Your task to perform on an android device: Do I have any events tomorrow? Image 0: 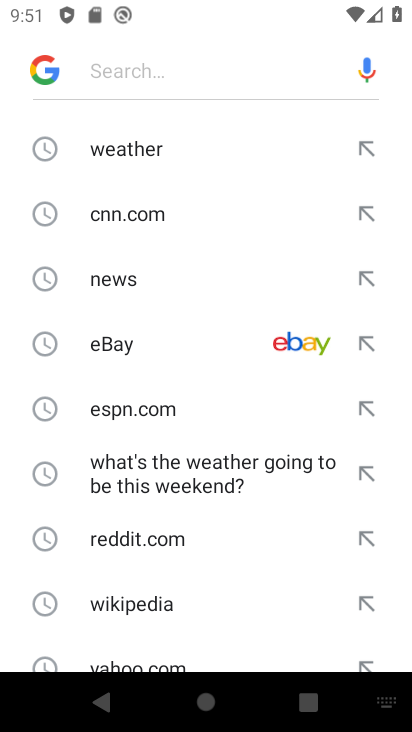
Step 0: press home button
Your task to perform on an android device: Do I have any events tomorrow? Image 1: 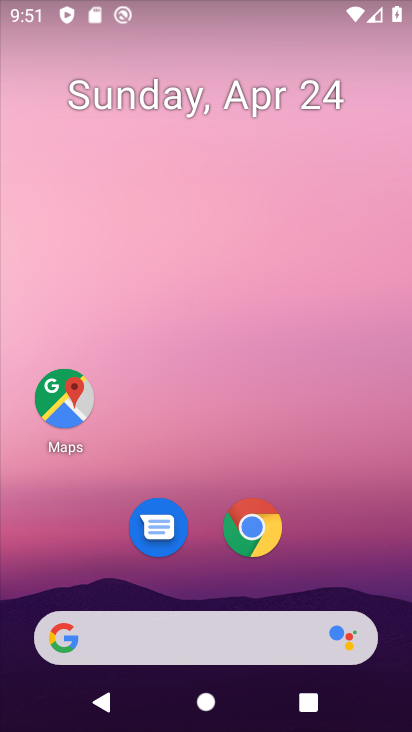
Step 1: drag from (154, 538) to (246, 100)
Your task to perform on an android device: Do I have any events tomorrow? Image 2: 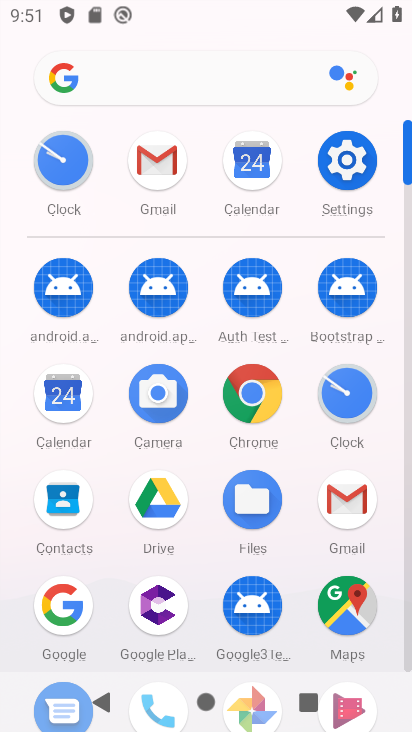
Step 2: click (69, 402)
Your task to perform on an android device: Do I have any events tomorrow? Image 3: 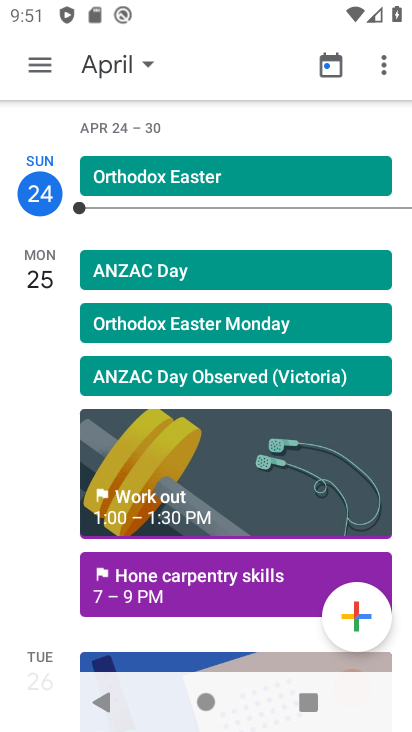
Step 3: drag from (185, 643) to (253, 144)
Your task to perform on an android device: Do I have any events tomorrow? Image 4: 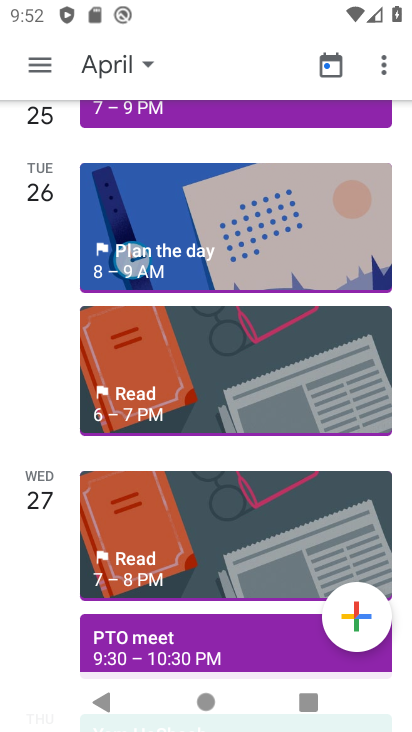
Step 4: click (148, 649)
Your task to perform on an android device: Do I have any events tomorrow? Image 5: 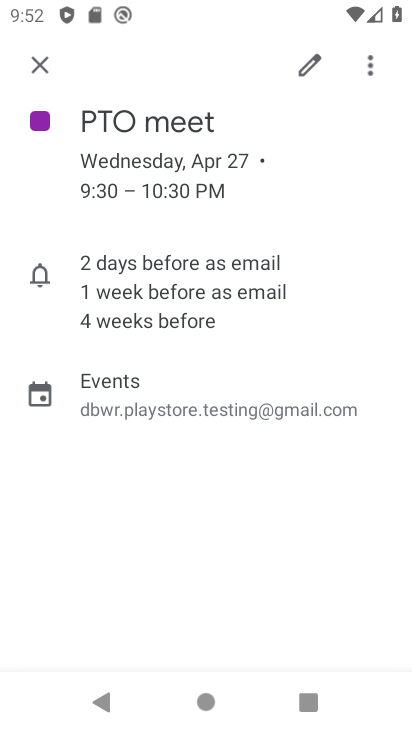
Step 5: click (54, 50)
Your task to perform on an android device: Do I have any events tomorrow? Image 6: 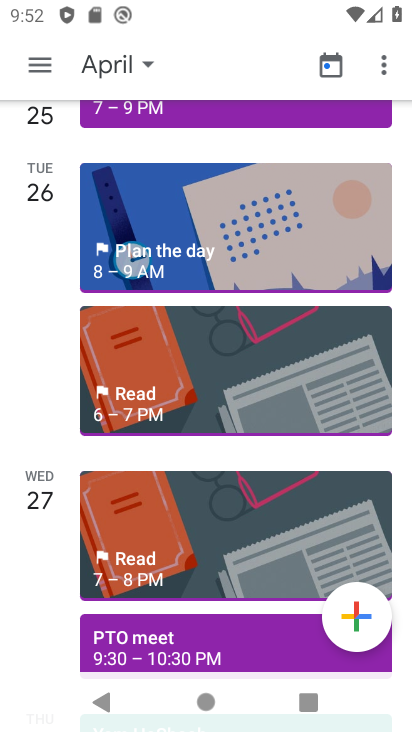
Step 6: drag from (244, 272) to (180, 581)
Your task to perform on an android device: Do I have any events tomorrow? Image 7: 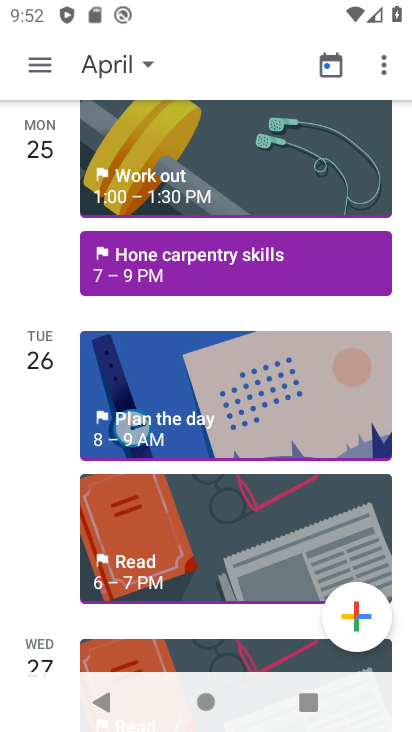
Step 7: click (162, 414)
Your task to perform on an android device: Do I have any events tomorrow? Image 8: 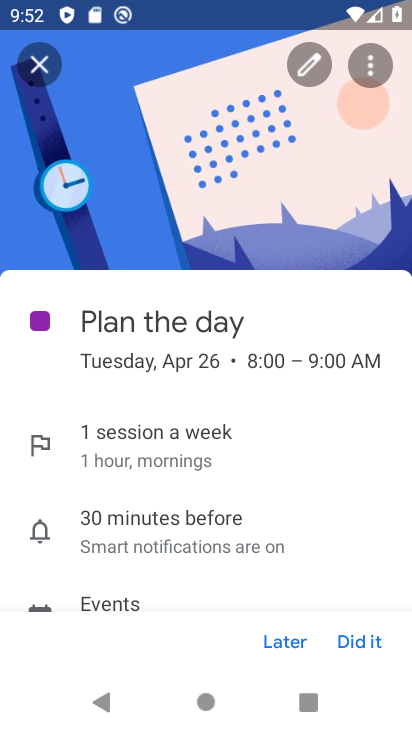
Step 8: task complete